Your task to perform on an android device: allow cookies in the chrome app Image 0: 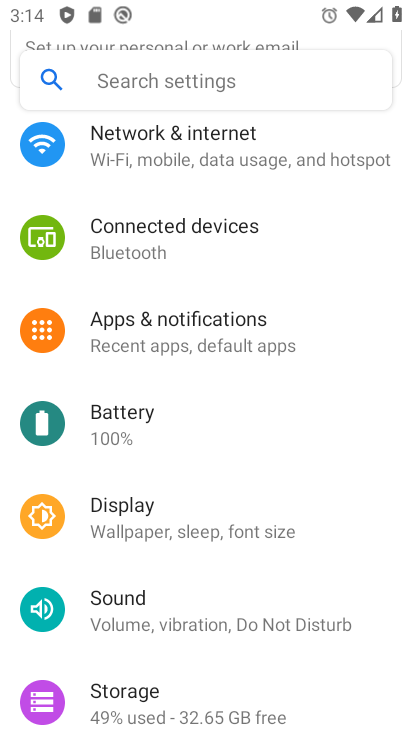
Step 0: press home button
Your task to perform on an android device: allow cookies in the chrome app Image 1: 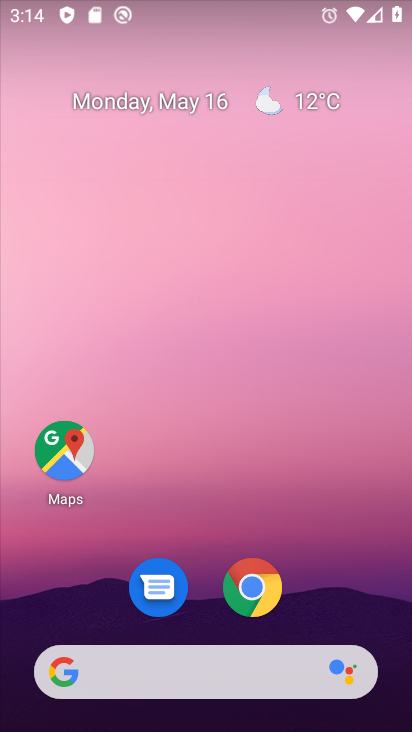
Step 1: click (264, 581)
Your task to perform on an android device: allow cookies in the chrome app Image 2: 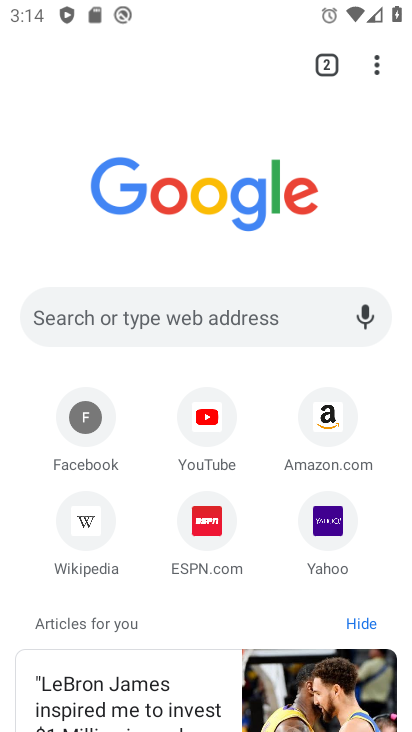
Step 2: click (377, 62)
Your task to perform on an android device: allow cookies in the chrome app Image 3: 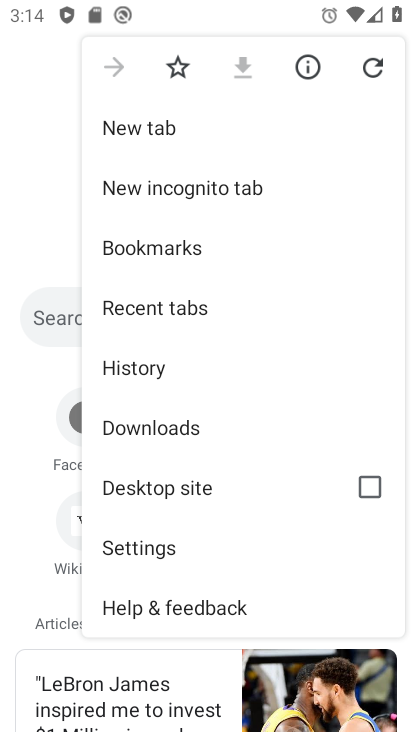
Step 3: click (123, 372)
Your task to perform on an android device: allow cookies in the chrome app Image 4: 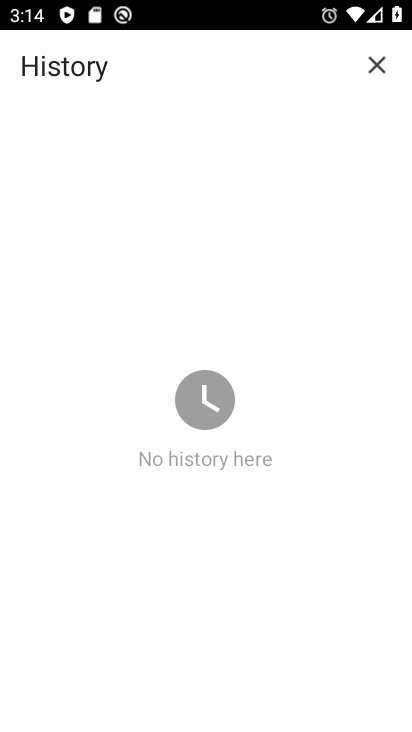
Step 4: press home button
Your task to perform on an android device: allow cookies in the chrome app Image 5: 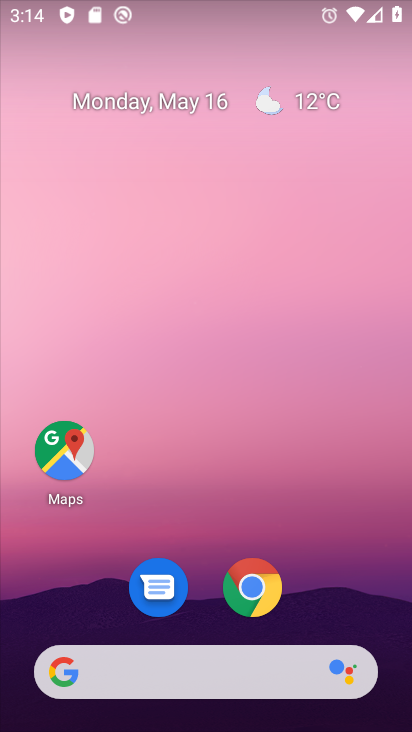
Step 5: click (262, 586)
Your task to perform on an android device: allow cookies in the chrome app Image 6: 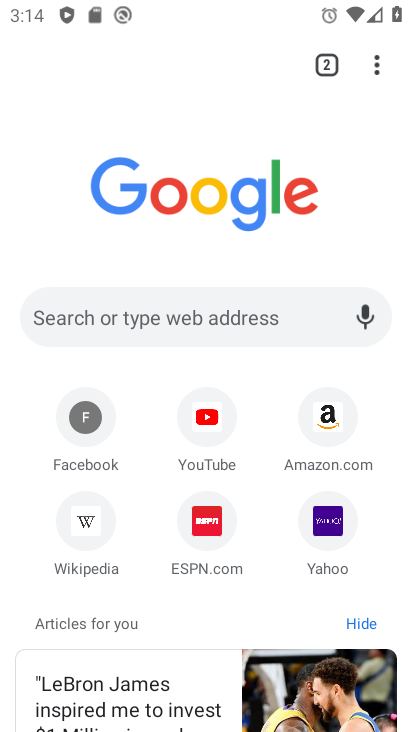
Step 6: click (371, 61)
Your task to perform on an android device: allow cookies in the chrome app Image 7: 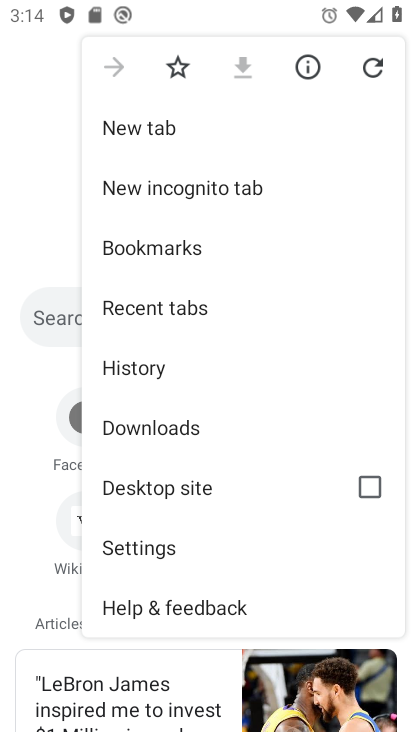
Step 7: click (153, 548)
Your task to perform on an android device: allow cookies in the chrome app Image 8: 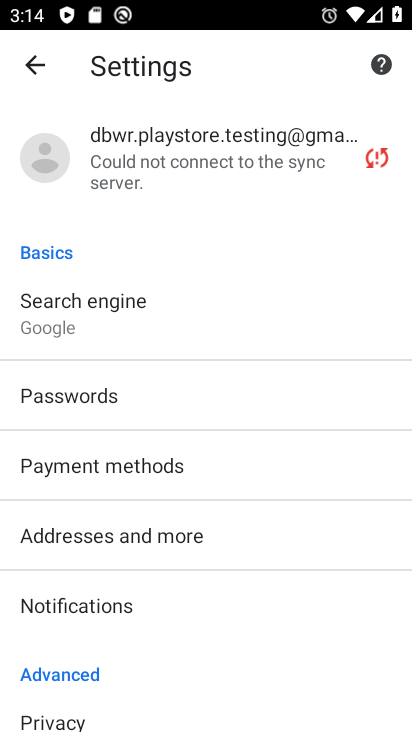
Step 8: drag from (142, 694) to (166, 455)
Your task to perform on an android device: allow cookies in the chrome app Image 9: 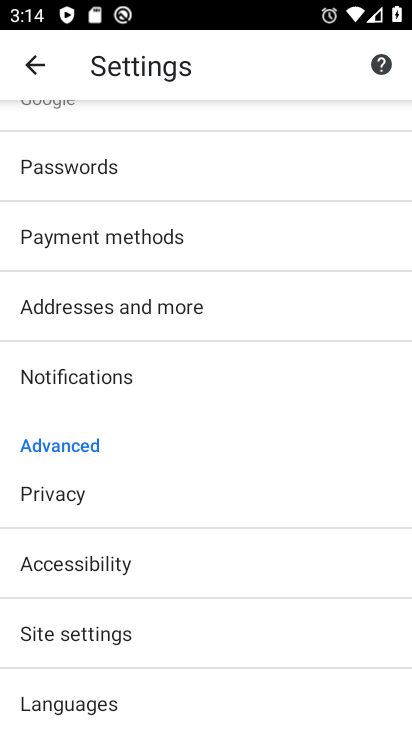
Step 9: click (61, 635)
Your task to perform on an android device: allow cookies in the chrome app Image 10: 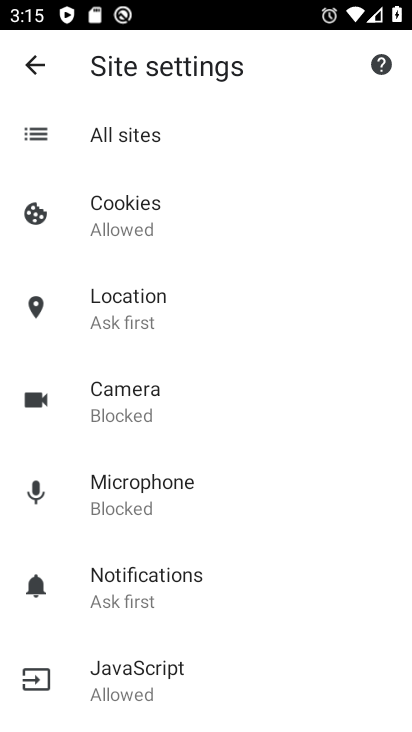
Step 10: drag from (271, 703) to (271, 445)
Your task to perform on an android device: allow cookies in the chrome app Image 11: 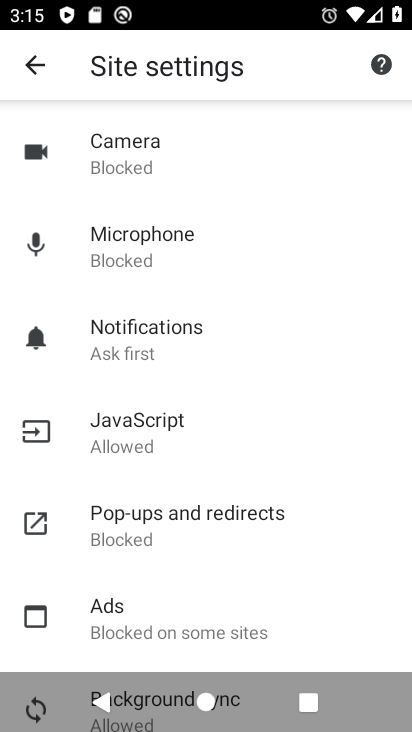
Step 11: drag from (301, 266) to (313, 401)
Your task to perform on an android device: allow cookies in the chrome app Image 12: 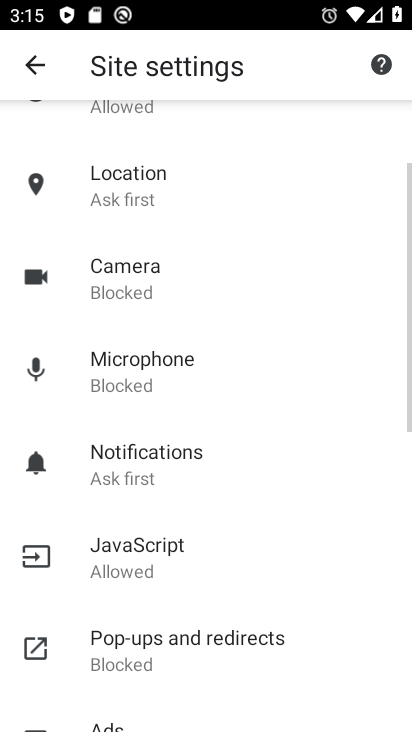
Step 12: drag from (285, 247) to (290, 339)
Your task to perform on an android device: allow cookies in the chrome app Image 13: 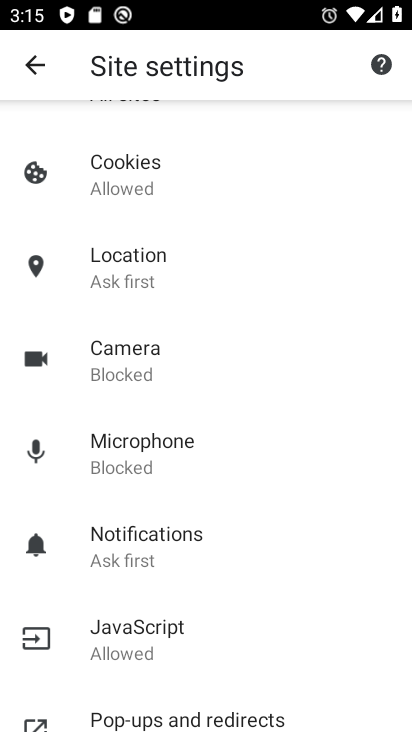
Step 13: click (97, 164)
Your task to perform on an android device: allow cookies in the chrome app Image 14: 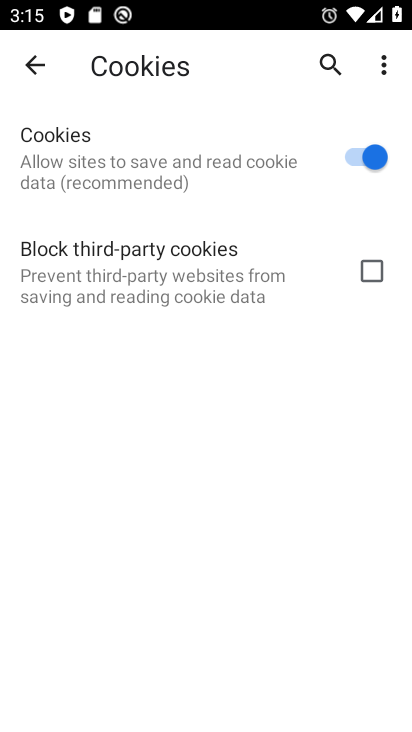
Step 14: task complete